Your task to perform on an android device: Check the weather Image 0: 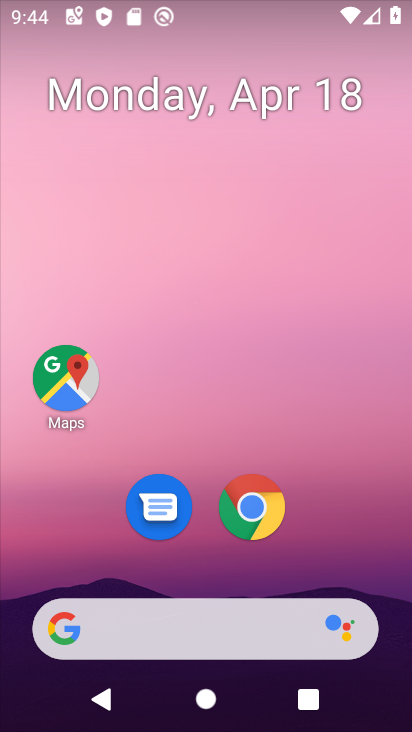
Step 0: drag from (218, 209) to (253, 82)
Your task to perform on an android device: Check the weather Image 1: 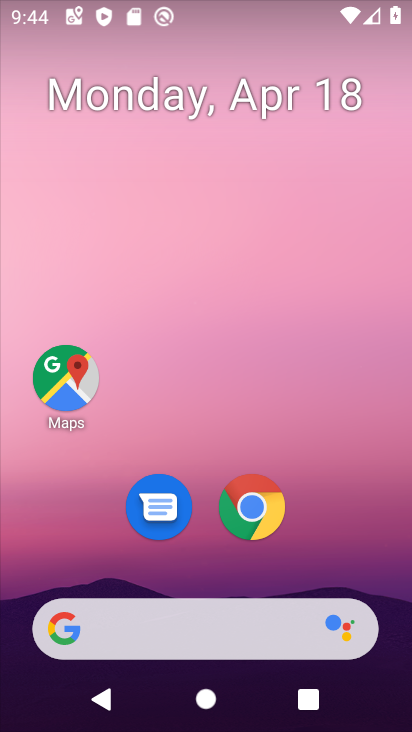
Step 1: click (215, 630)
Your task to perform on an android device: Check the weather Image 2: 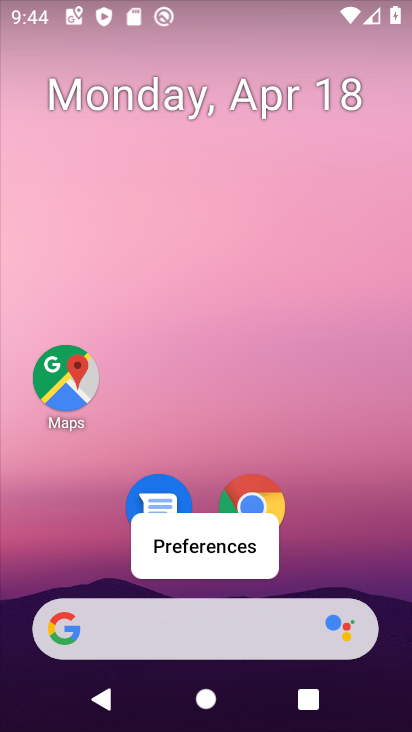
Step 2: click (167, 637)
Your task to perform on an android device: Check the weather Image 3: 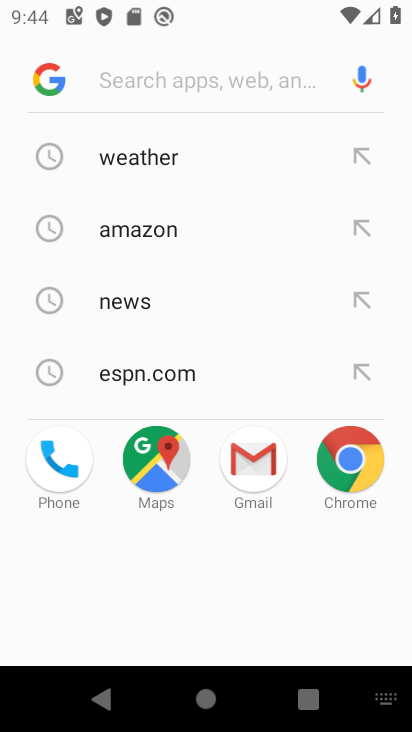
Step 3: click (182, 174)
Your task to perform on an android device: Check the weather Image 4: 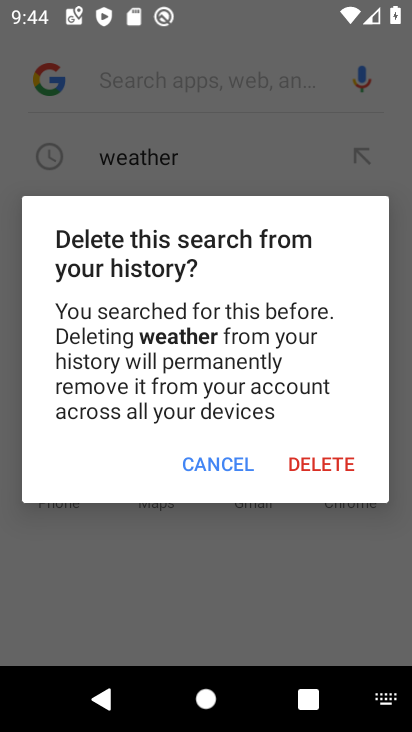
Step 4: click (254, 468)
Your task to perform on an android device: Check the weather Image 5: 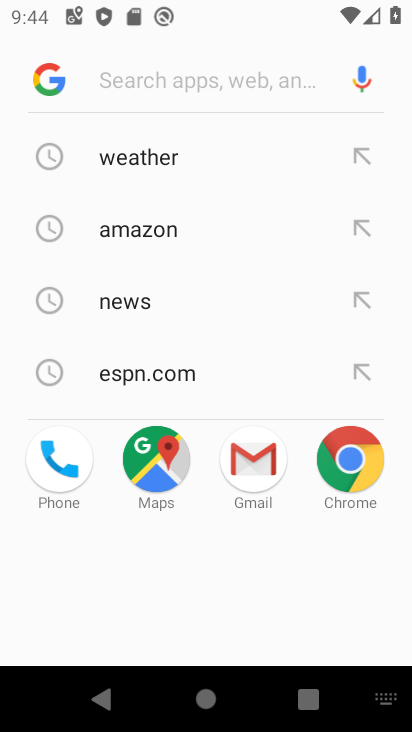
Step 5: click (178, 159)
Your task to perform on an android device: Check the weather Image 6: 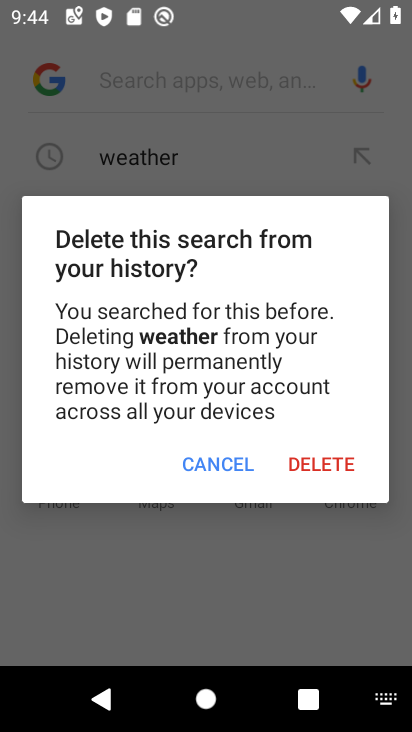
Step 6: click (220, 468)
Your task to perform on an android device: Check the weather Image 7: 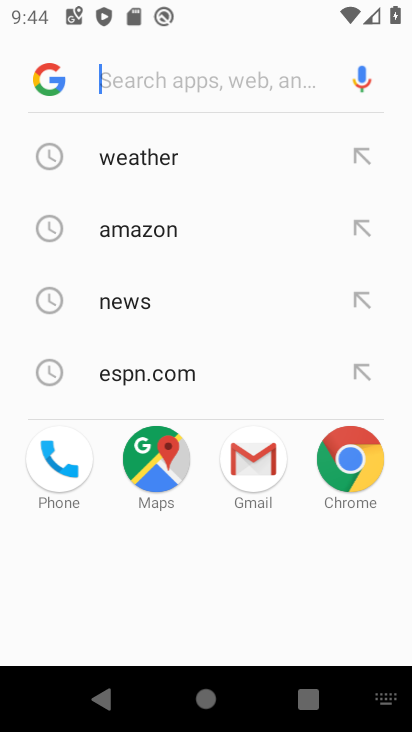
Step 7: click (287, 145)
Your task to perform on an android device: Check the weather Image 8: 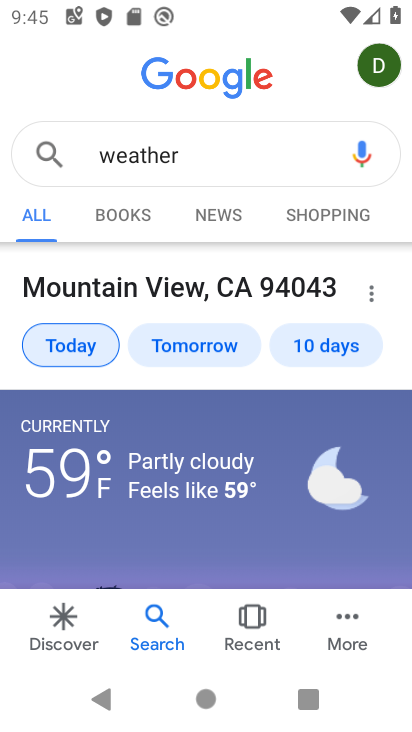
Step 8: task complete